Your task to perform on an android device: Go to ESPN.com Image 0: 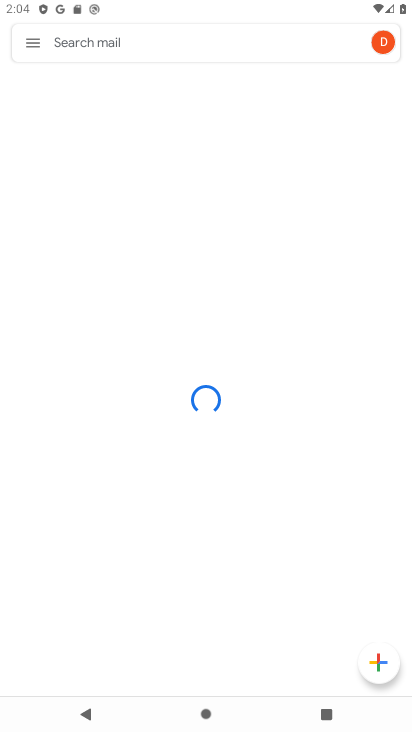
Step 0: press home button
Your task to perform on an android device: Go to ESPN.com Image 1: 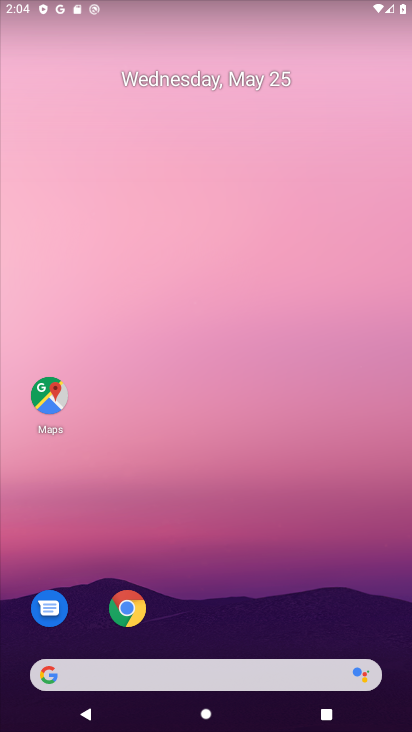
Step 1: click (132, 605)
Your task to perform on an android device: Go to ESPN.com Image 2: 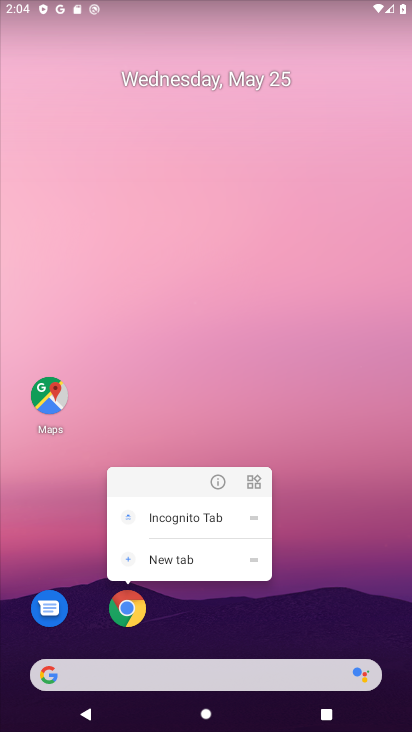
Step 2: click (132, 605)
Your task to perform on an android device: Go to ESPN.com Image 3: 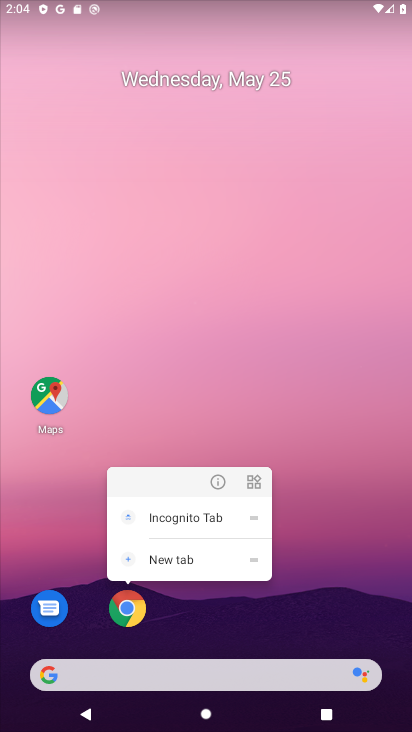
Step 3: click (132, 605)
Your task to perform on an android device: Go to ESPN.com Image 4: 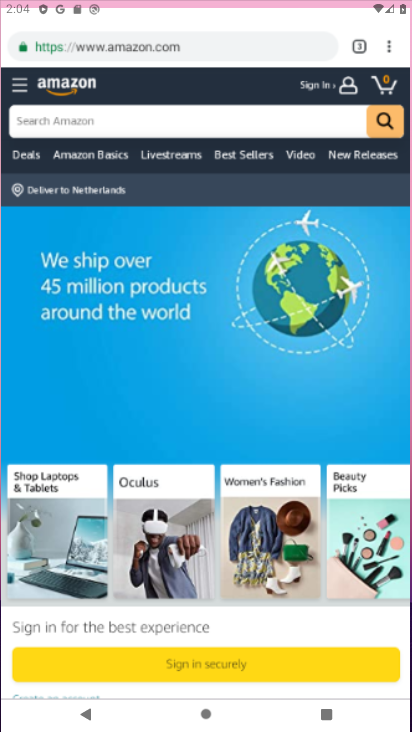
Step 4: click (131, 606)
Your task to perform on an android device: Go to ESPN.com Image 5: 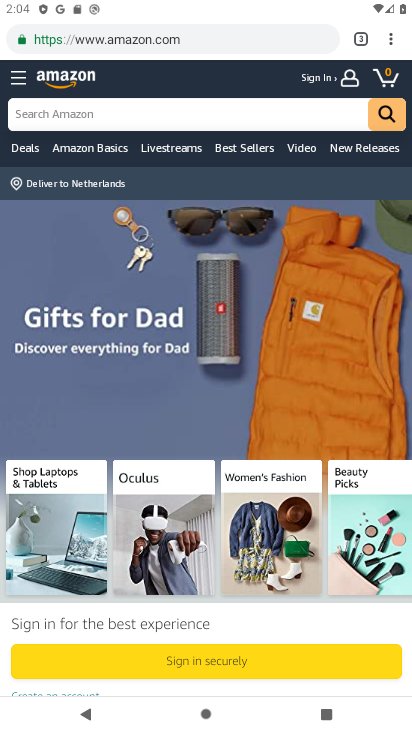
Step 5: click (396, 38)
Your task to perform on an android device: Go to ESPN.com Image 6: 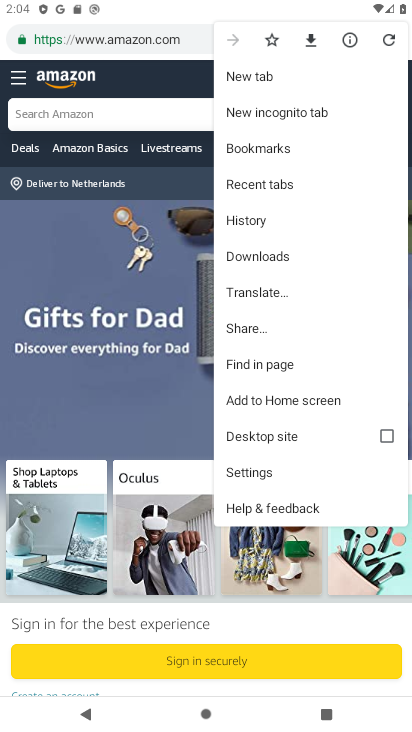
Step 6: click (284, 69)
Your task to perform on an android device: Go to ESPN.com Image 7: 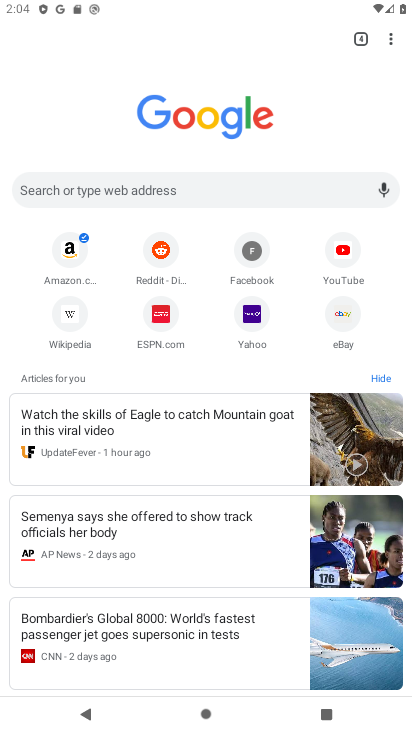
Step 7: click (158, 315)
Your task to perform on an android device: Go to ESPN.com Image 8: 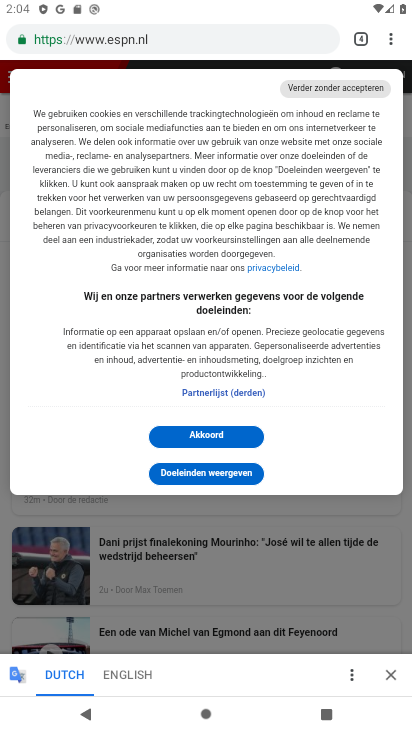
Step 8: task complete